Your task to perform on an android device: Go to Google maps Image 0: 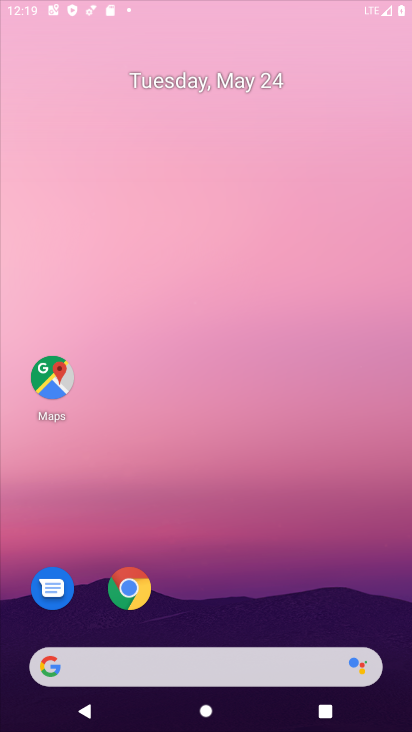
Step 0: click (130, 592)
Your task to perform on an android device: Go to Google maps Image 1: 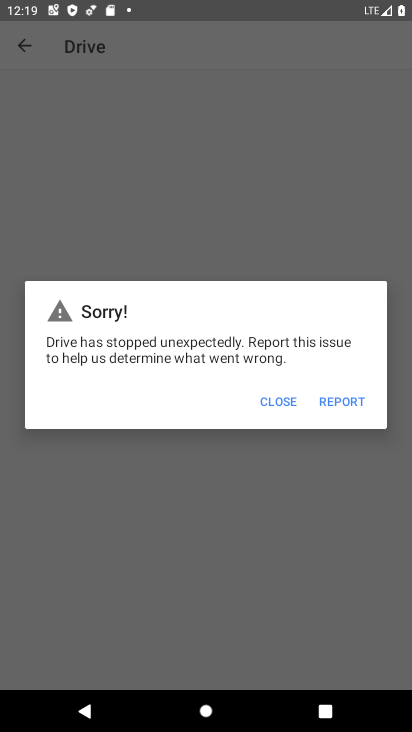
Step 1: press home button
Your task to perform on an android device: Go to Google maps Image 2: 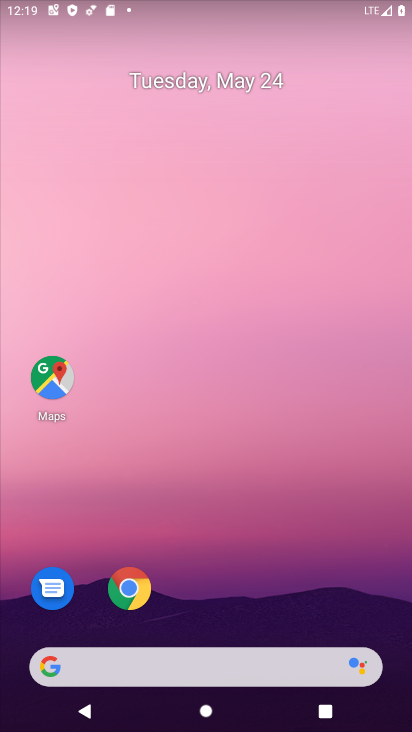
Step 2: click (36, 374)
Your task to perform on an android device: Go to Google maps Image 3: 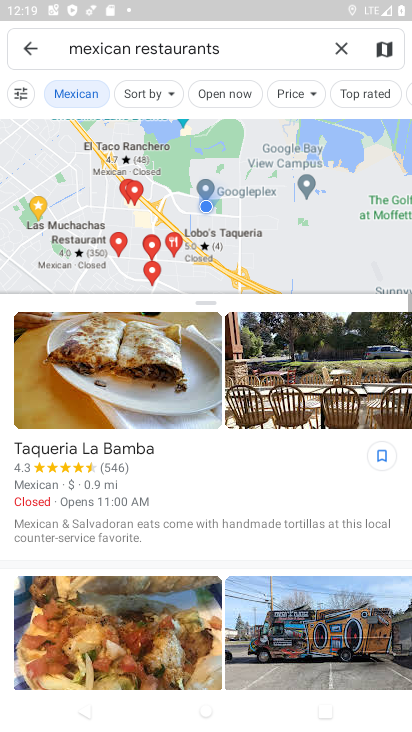
Step 3: task complete